Your task to perform on an android device: See recent photos Image 0: 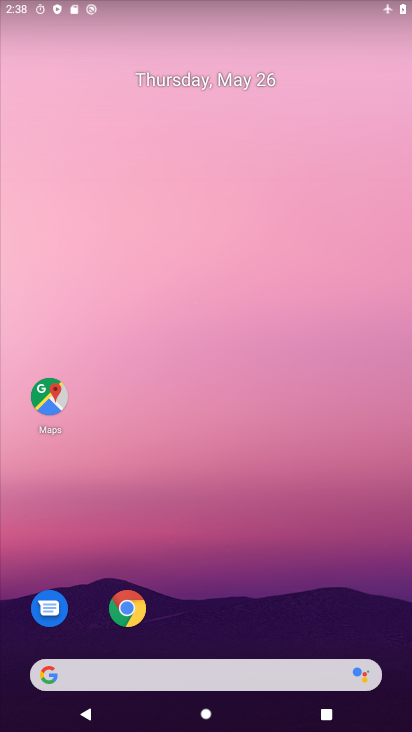
Step 0: drag from (276, 731) to (253, 536)
Your task to perform on an android device: See recent photos Image 1: 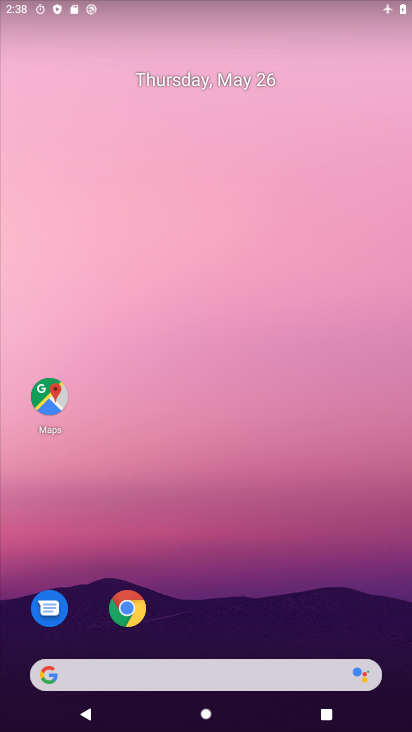
Step 1: drag from (262, 705) to (154, 326)
Your task to perform on an android device: See recent photos Image 2: 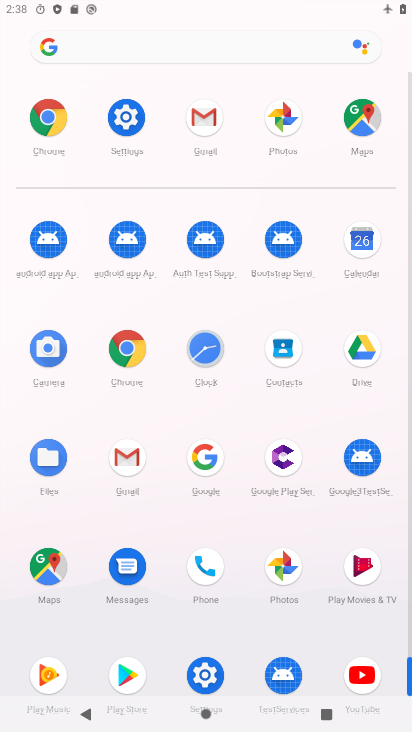
Step 2: click (289, 562)
Your task to perform on an android device: See recent photos Image 3: 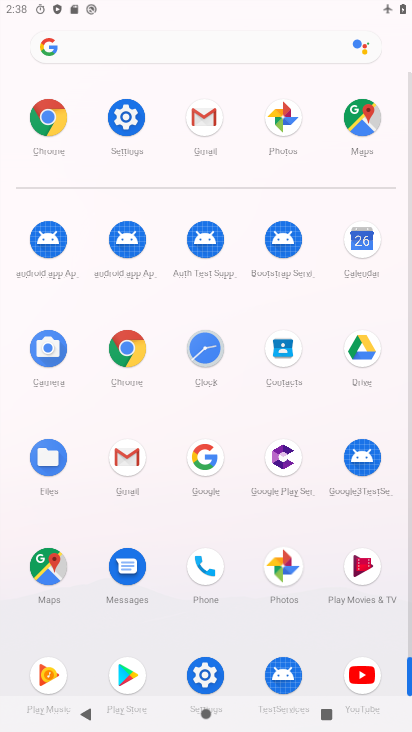
Step 3: click (289, 562)
Your task to perform on an android device: See recent photos Image 4: 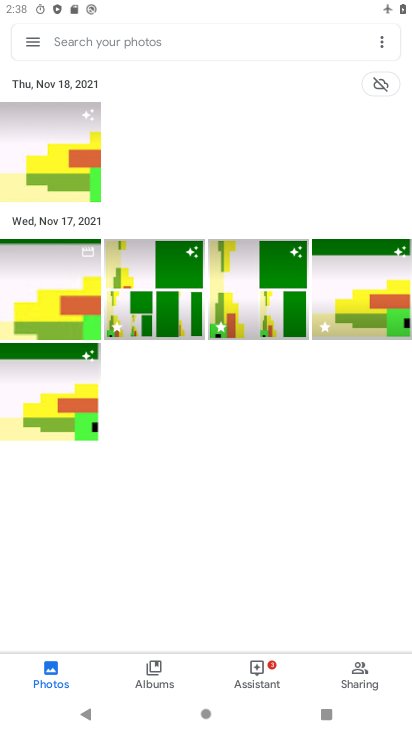
Step 4: task complete